Your task to perform on an android device: Turn off the flashlight Image 0: 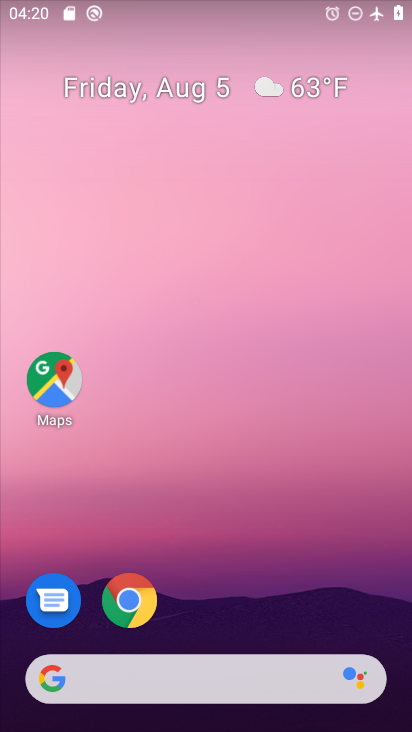
Step 0: drag from (171, 679) to (179, 113)
Your task to perform on an android device: Turn off the flashlight Image 1: 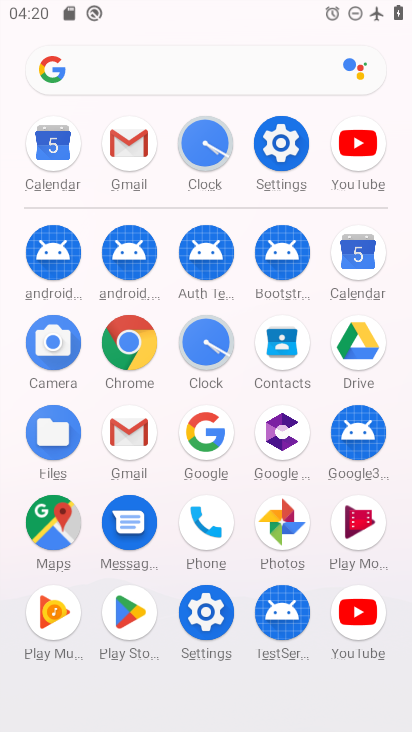
Step 1: click (279, 146)
Your task to perform on an android device: Turn off the flashlight Image 2: 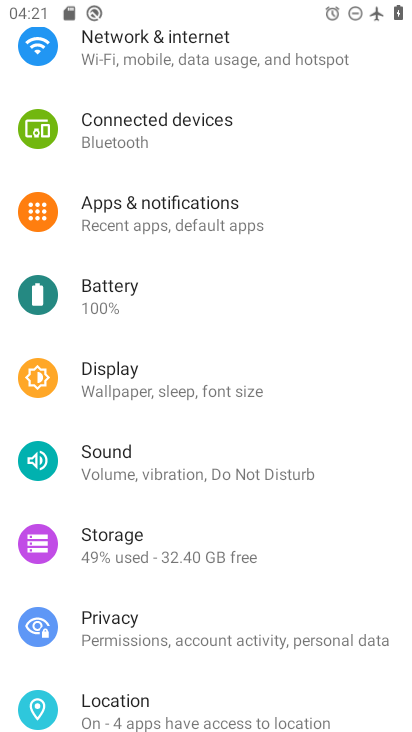
Step 2: click (182, 393)
Your task to perform on an android device: Turn off the flashlight Image 3: 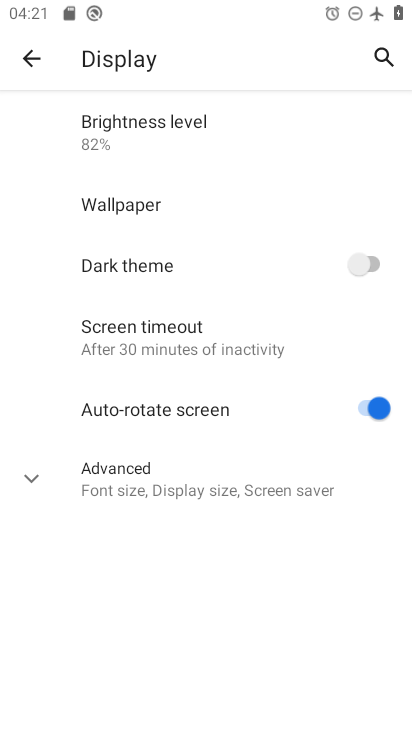
Step 3: click (164, 339)
Your task to perform on an android device: Turn off the flashlight Image 4: 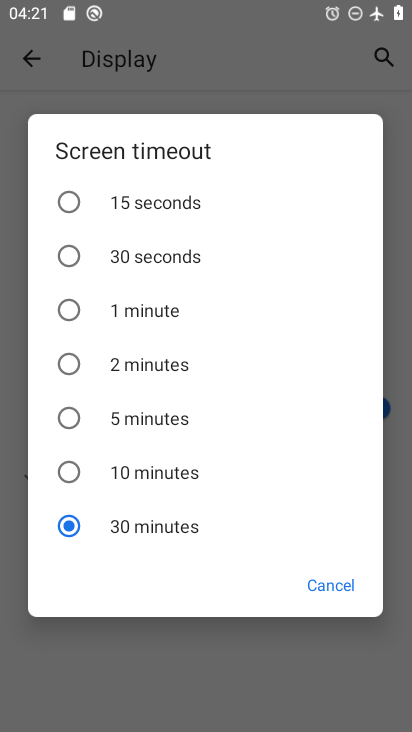
Step 4: click (319, 585)
Your task to perform on an android device: Turn off the flashlight Image 5: 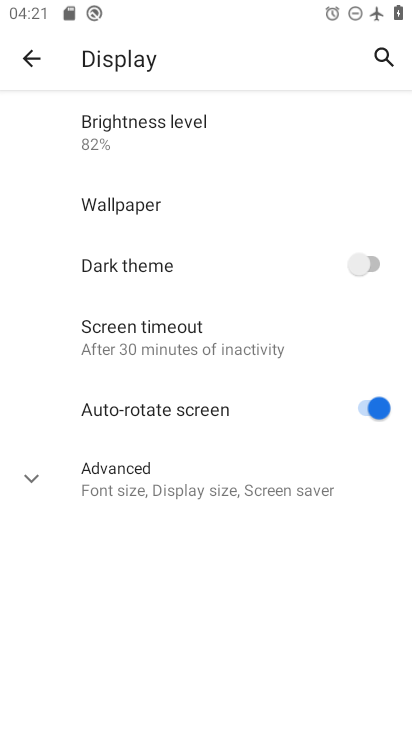
Step 5: click (207, 490)
Your task to perform on an android device: Turn off the flashlight Image 6: 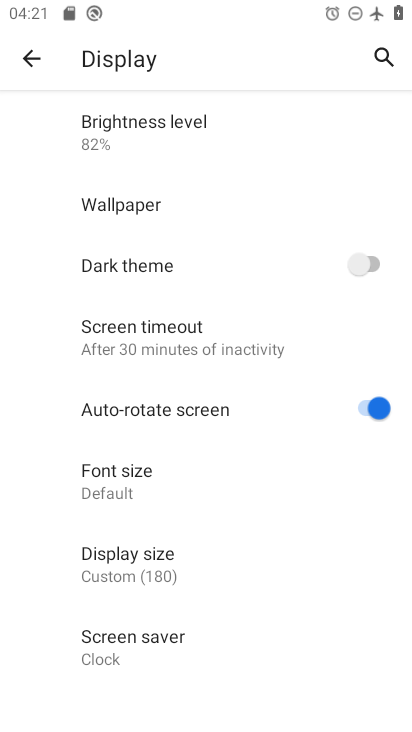
Step 6: click (134, 632)
Your task to perform on an android device: Turn off the flashlight Image 7: 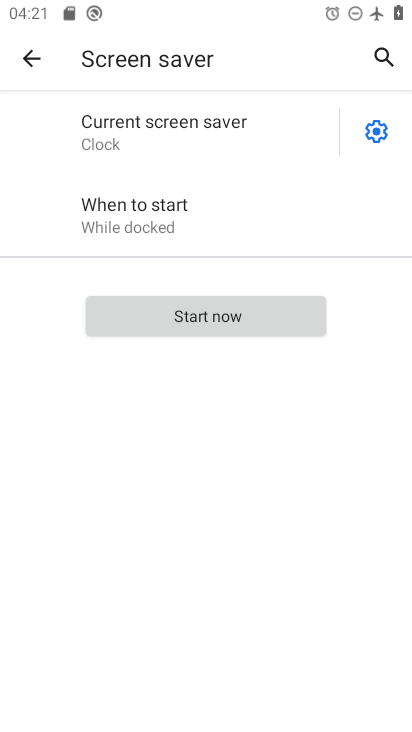
Step 7: click (372, 131)
Your task to perform on an android device: Turn off the flashlight Image 8: 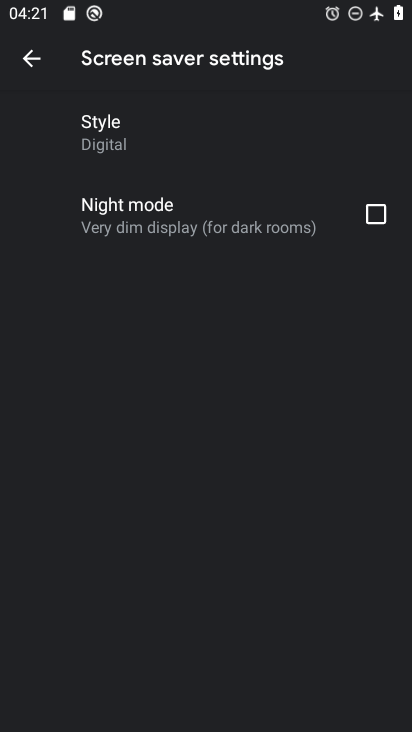
Step 8: task complete